Your task to perform on an android device: Go to sound settings Image 0: 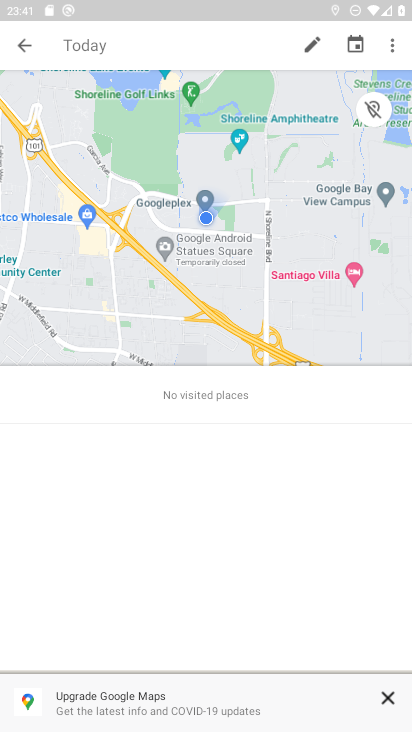
Step 0: press home button
Your task to perform on an android device: Go to sound settings Image 1: 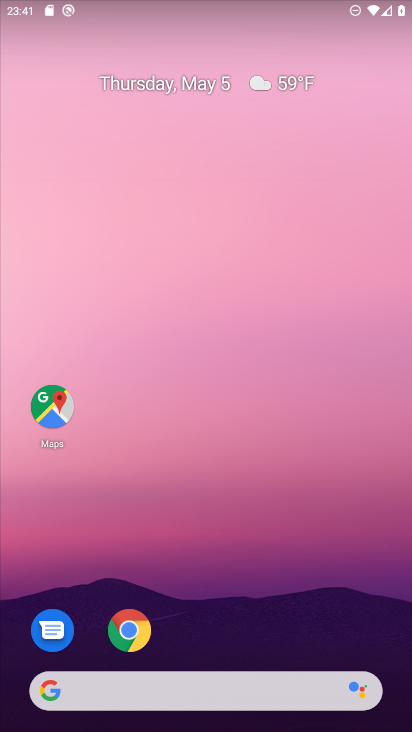
Step 1: drag from (232, 622) to (296, 181)
Your task to perform on an android device: Go to sound settings Image 2: 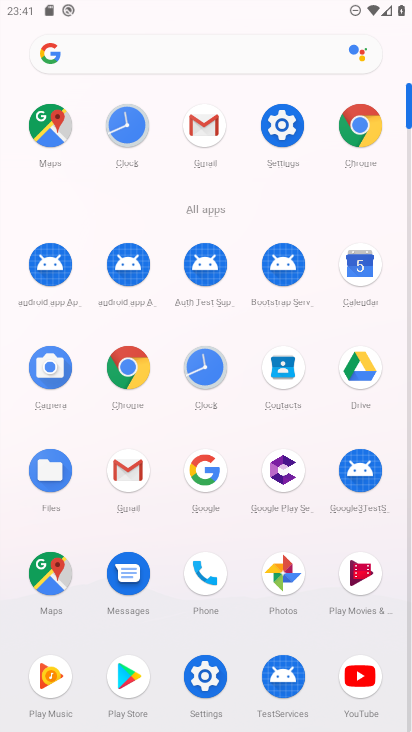
Step 2: click (284, 127)
Your task to perform on an android device: Go to sound settings Image 3: 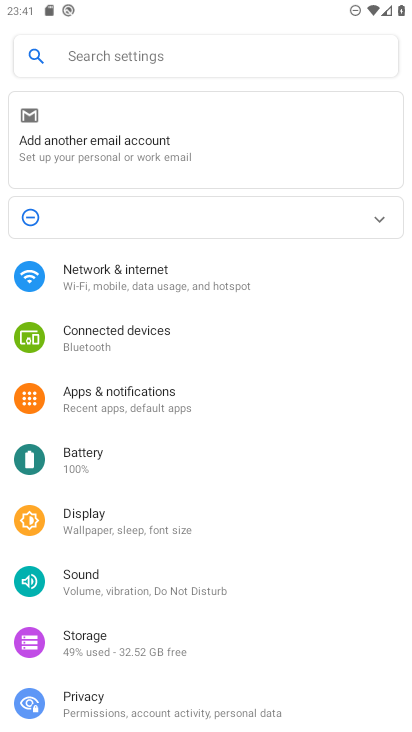
Step 3: click (129, 574)
Your task to perform on an android device: Go to sound settings Image 4: 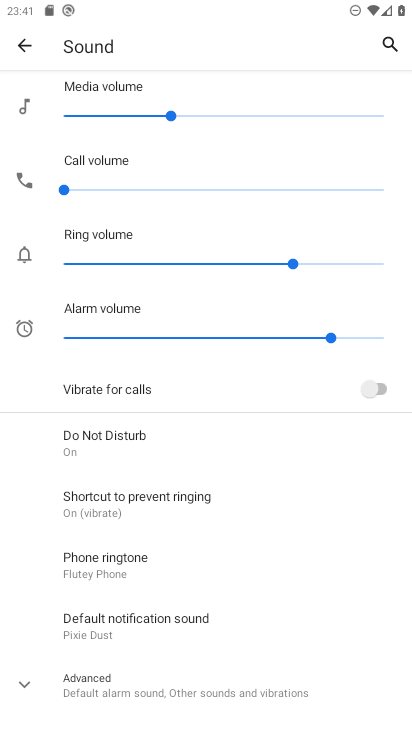
Step 4: task complete